Your task to perform on an android device: Go to ESPN.com Image 0: 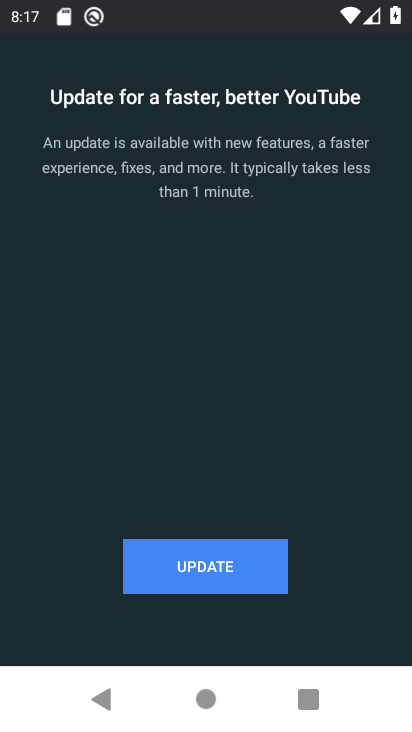
Step 0: press home button
Your task to perform on an android device: Go to ESPN.com Image 1: 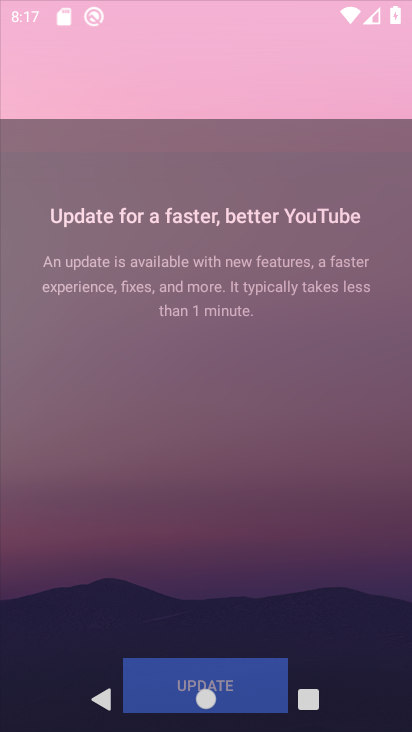
Step 1: press home button
Your task to perform on an android device: Go to ESPN.com Image 2: 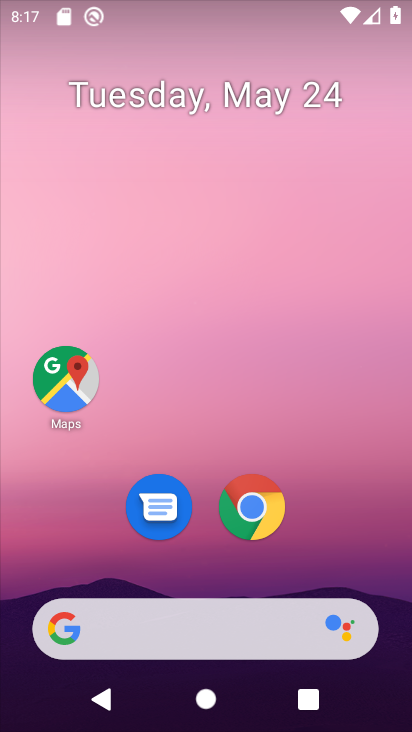
Step 2: drag from (235, 588) to (235, 52)
Your task to perform on an android device: Go to ESPN.com Image 3: 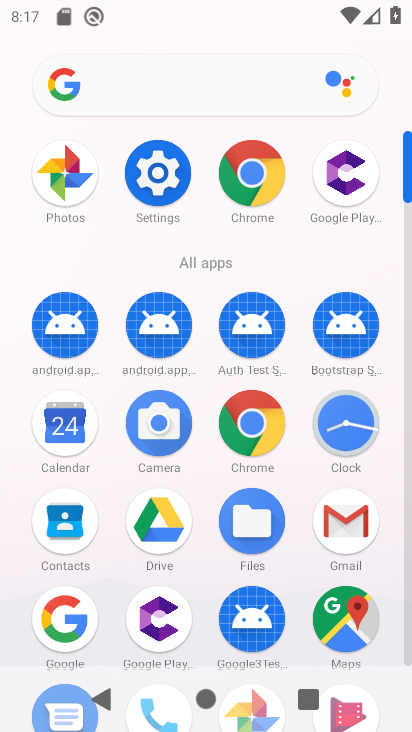
Step 3: click (183, 96)
Your task to perform on an android device: Go to ESPN.com Image 4: 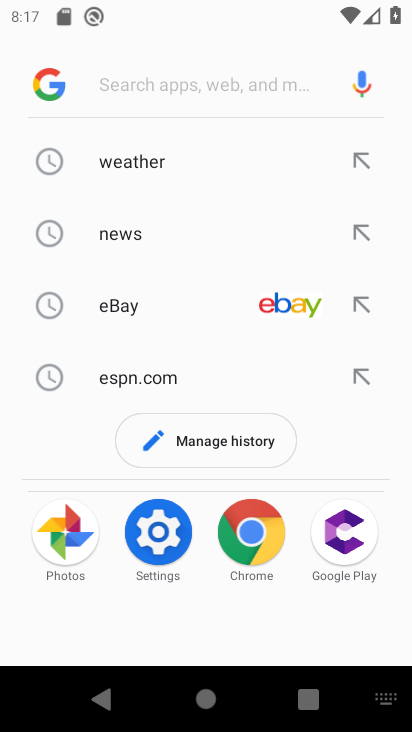
Step 4: click (132, 378)
Your task to perform on an android device: Go to ESPN.com Image 5: 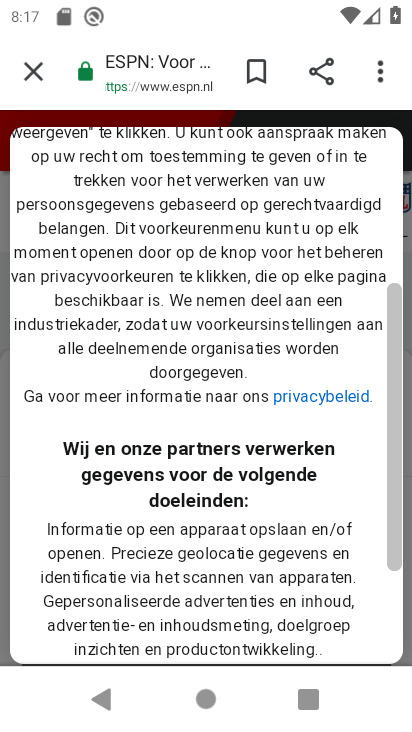
Step 5: task complete